Your task to perform on an android device: delete browsing data in the chrome app Image 0: 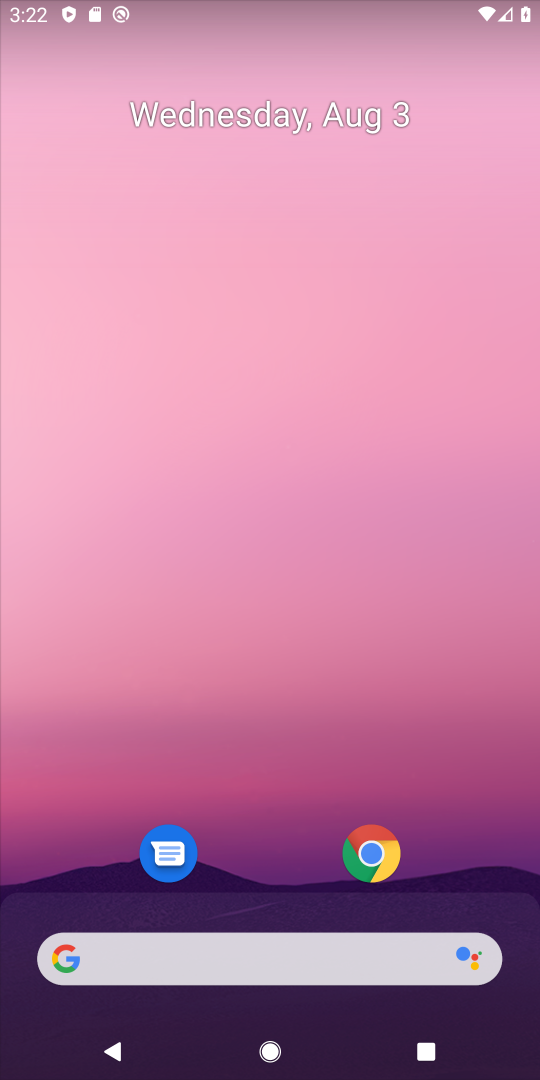
Step 0: click (372, 856)
Your task to perform on an android device: delete browsing data in the chrome app Image 1: 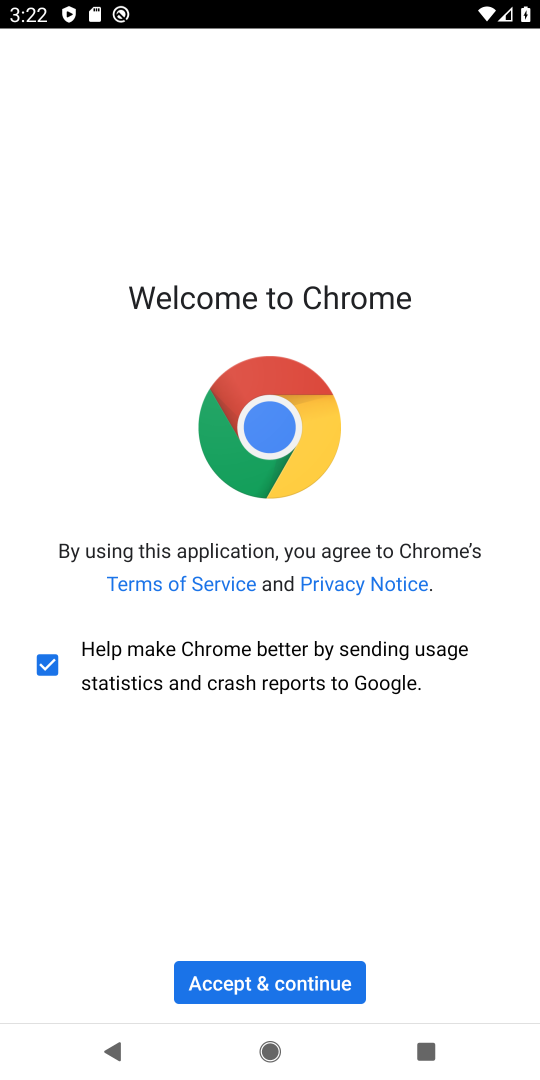
Step 1: click (286, 987)
Your task to perform on an android device: delete browsing data in the chrome app Image 2: 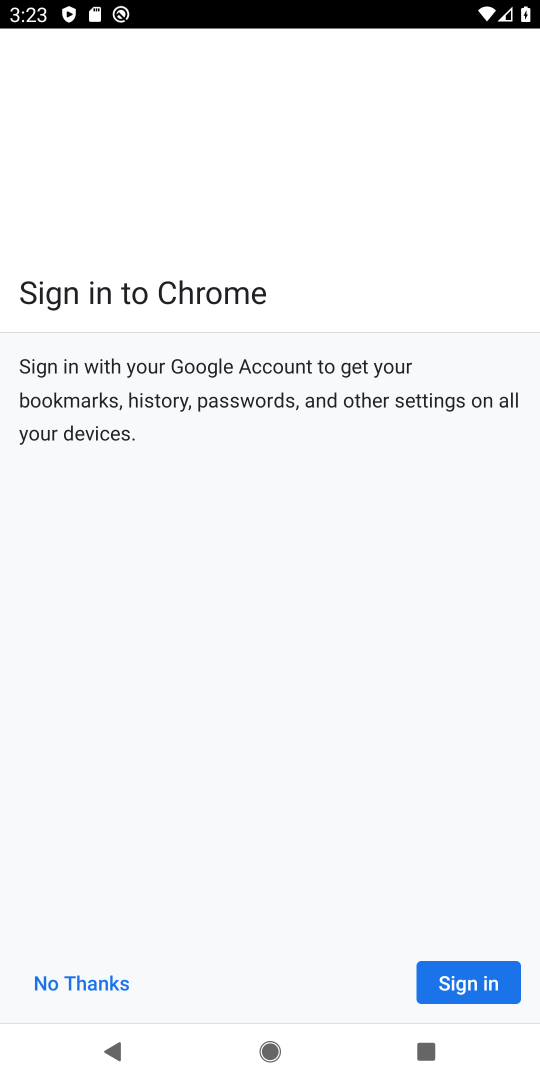
Step 2: click (63, 987)
Your task to perform on an android device: delete browsing data in the chrome app Image 3: 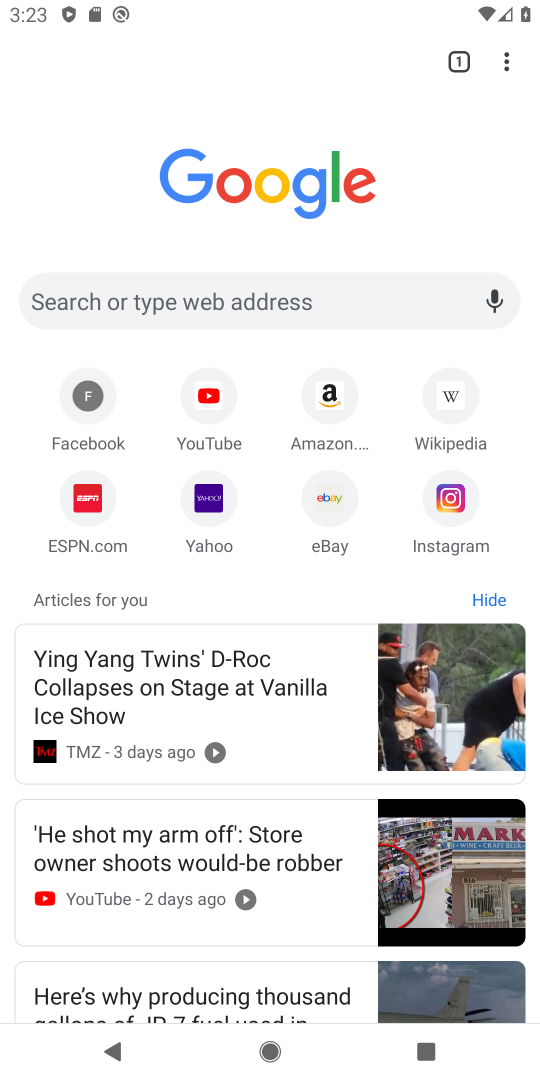
Step 3: click (516, 62)
Your task to perform on an android device: delete browsing data in the chrome app Image 4: 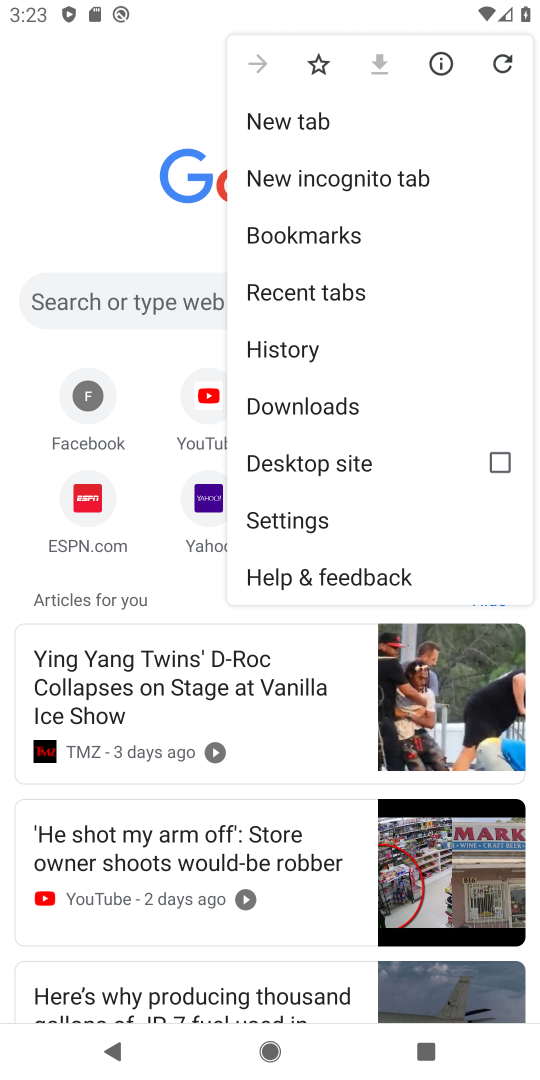
Step 4: click (288, 355)
Your task to perform on an android device: delete browsing data in the chrome app Image 5: 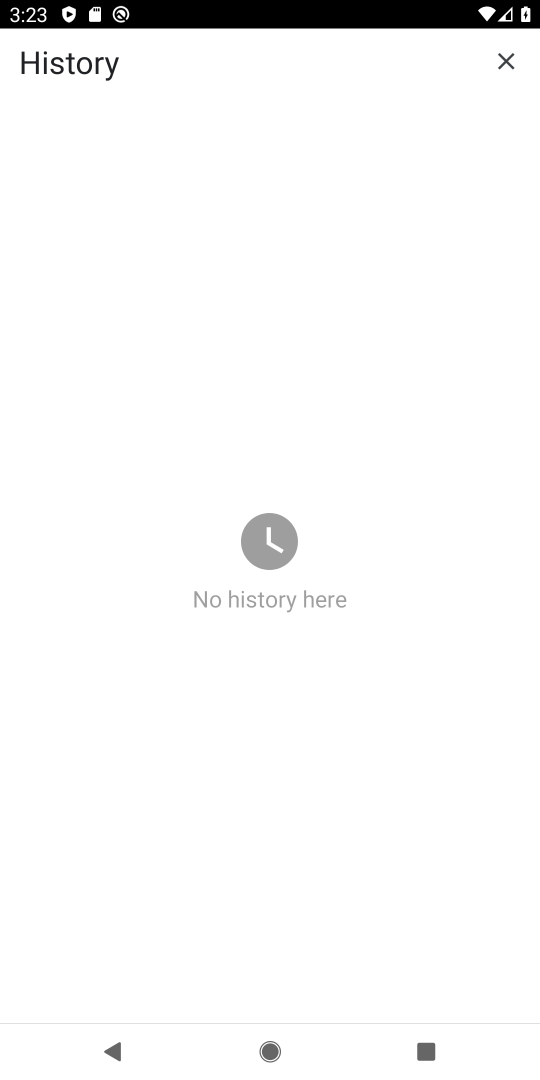
Step 5: task complete